Your task to perform on an android device: Open Google Chrome Image 0: 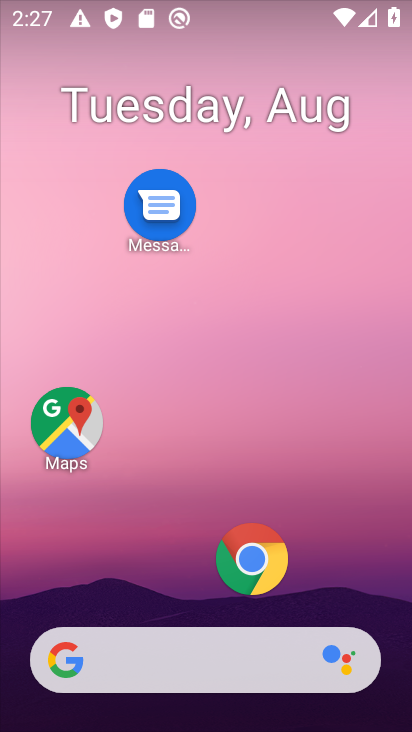
Step 0: click (256, 553)
Your task to perform on an android device: Open Google Chrome Image 1: 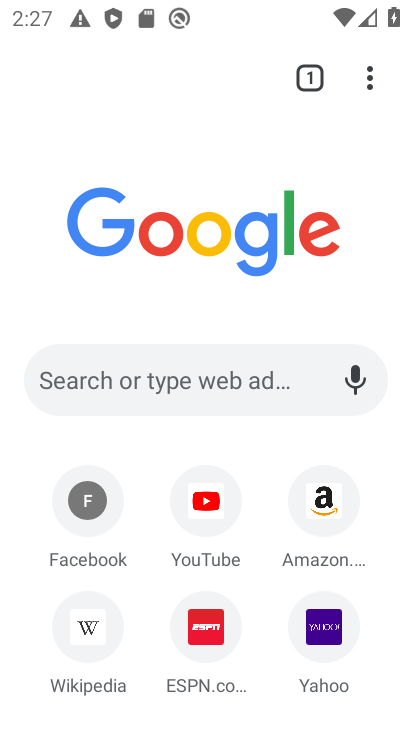
Step 1: task complete